Your task to perform on an android device: clear history in the chrome app Image 0: 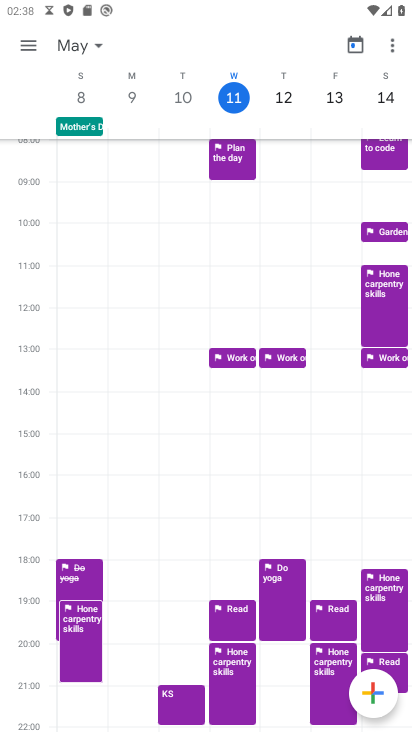
Step 0: press home button
Your task to perform on an android device: clear history in the chrome app Image 1: 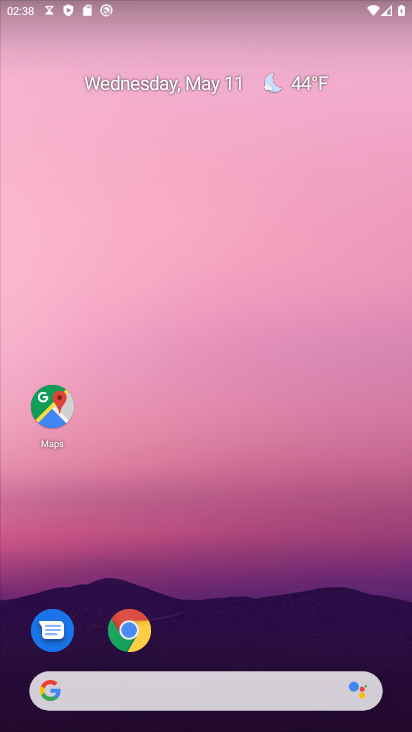
Step 1: click (125, 634)
Your task to perform on an android device: clear history in the chrome app Image 2: 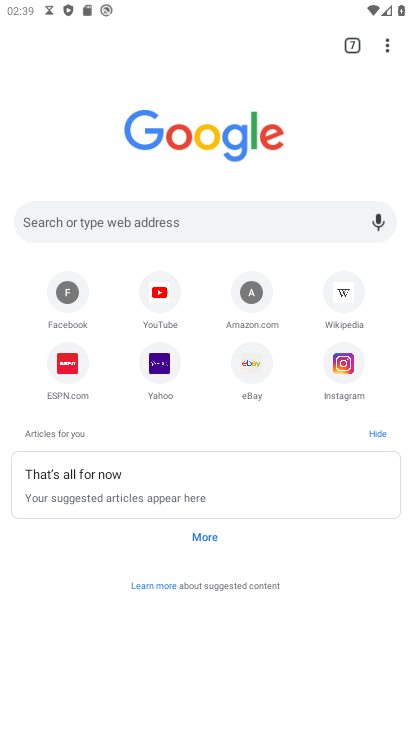
Step 2: click (388, 49)
Your task to perform on an android device: clear history in the chrome app Image 3: 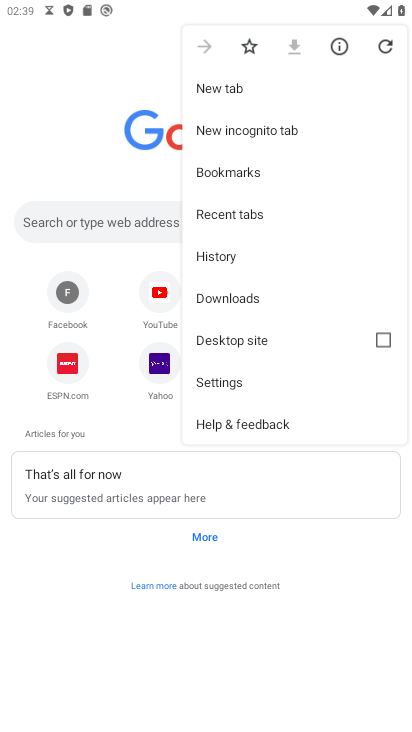
Step 3: click (216, 257)
Your task to perform on an android device: clear history in the chrome app Image 4: 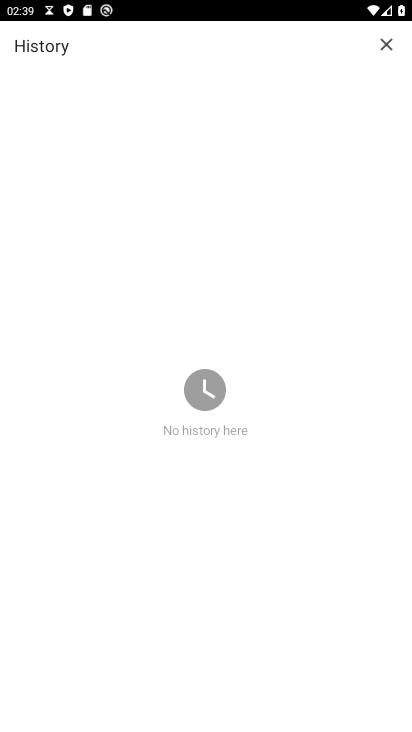
Step 4: task complete